Your task to perform on an android device: open app "HBO Max: Stream TV & Movies" (install if not already installed) and go to login screen Image 0: 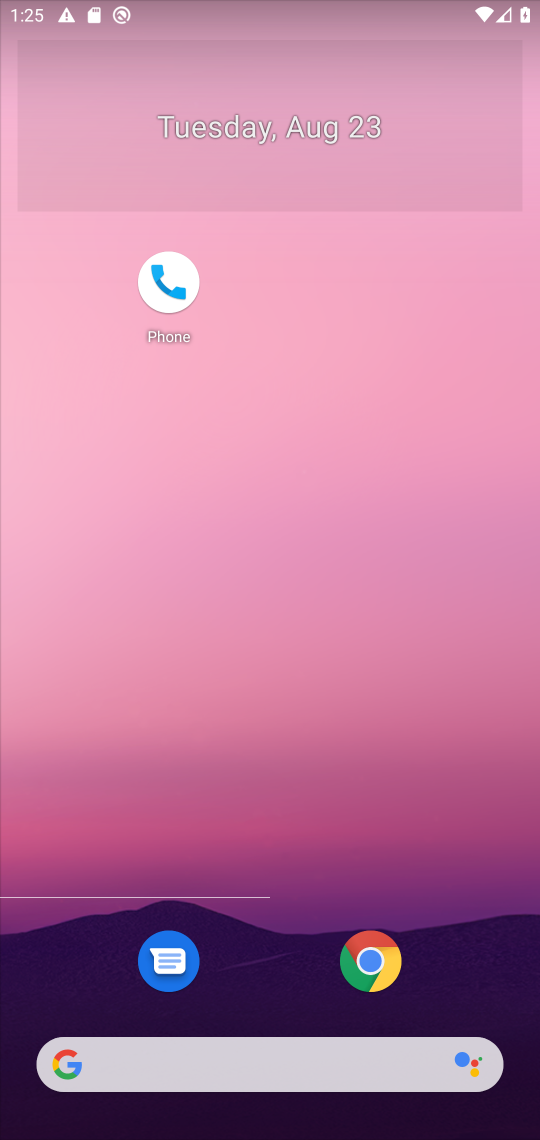
Step 0: drag from (263, 1004) to (239, 224)
Your task to perform on an android device: open app "HBO Max: Stream TV & Movies" (install if not already installed) and go to login screen Image 1: 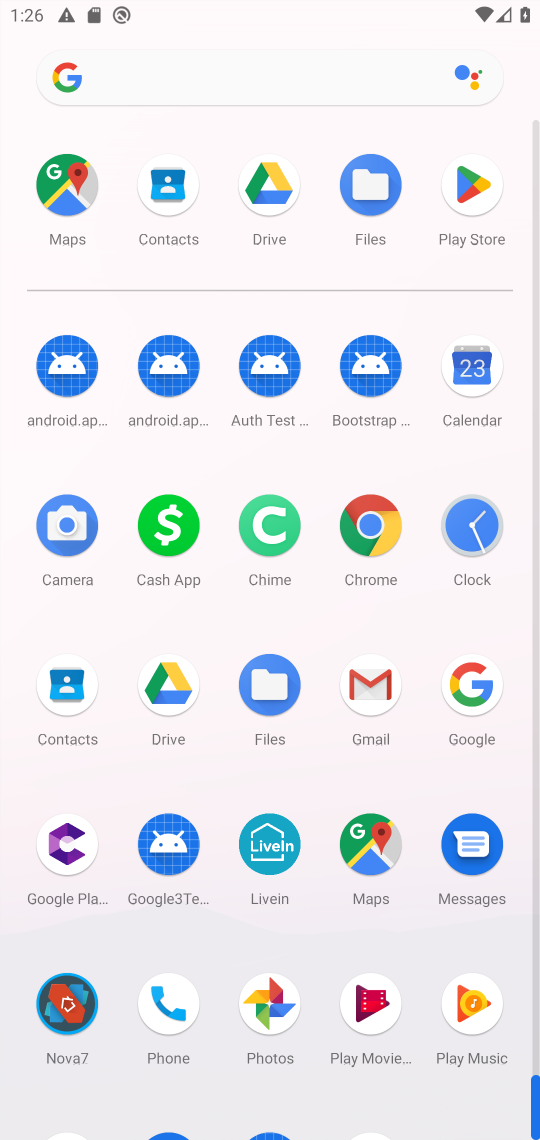
Step 1: click (456, 198)
Your task to perform on an android device: open app "HBO Max: Stream TV & Movies" (install if not already installed) and go to login screen Image 2: 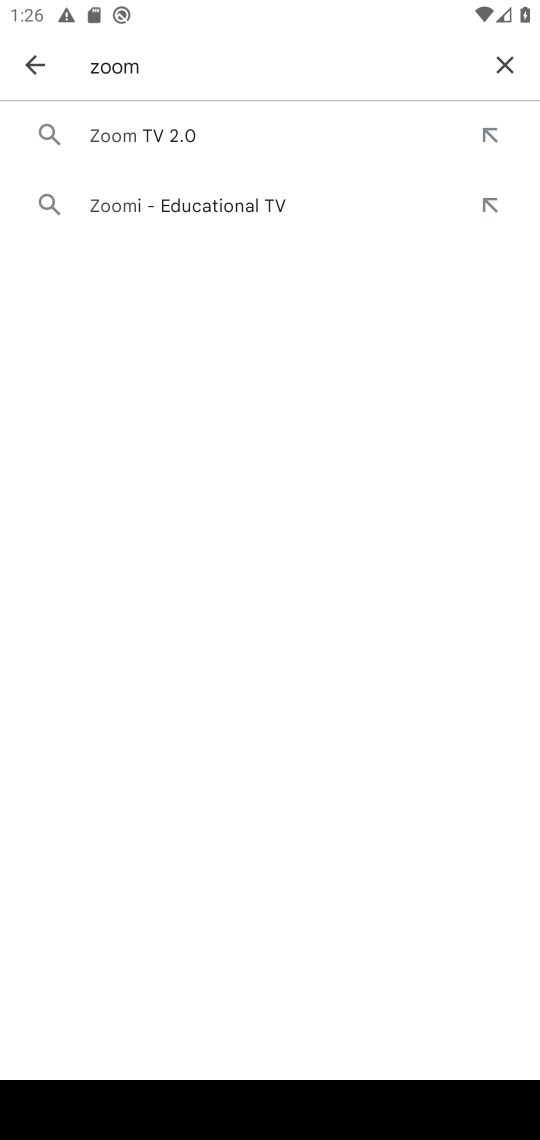
Step 2: click (498, 77)
Your task to perform on an android device: open app "HBO Max: Stream TV & Movies" (install if not already installed) and go to login screen Image 3: 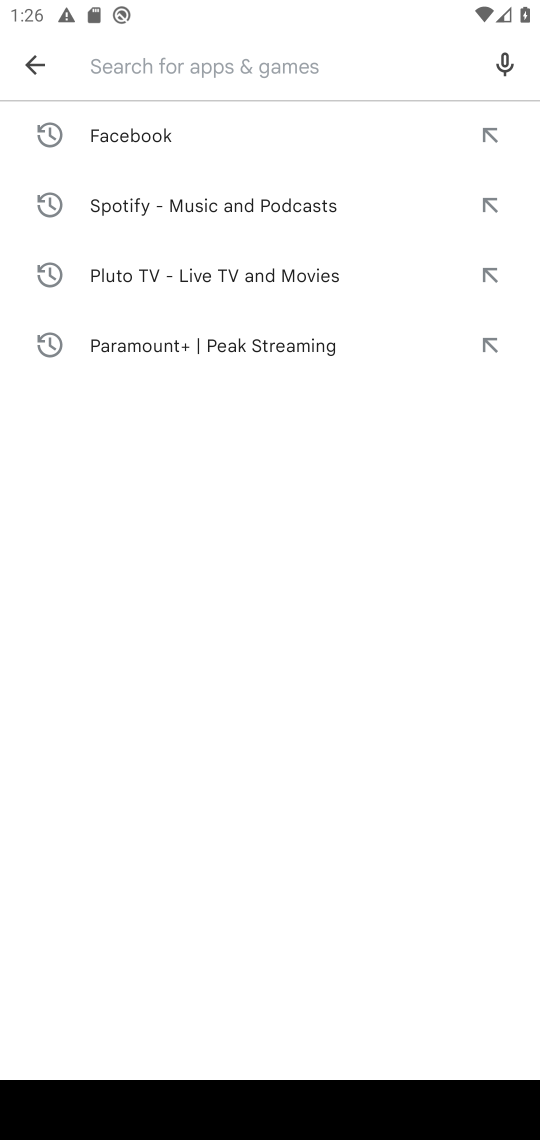
Step 3: type "hbo"
Your task to perform on an android device: open app "HBO Max: Stream TV & Movies" (install if not already installed) and go to login screen Image 4: 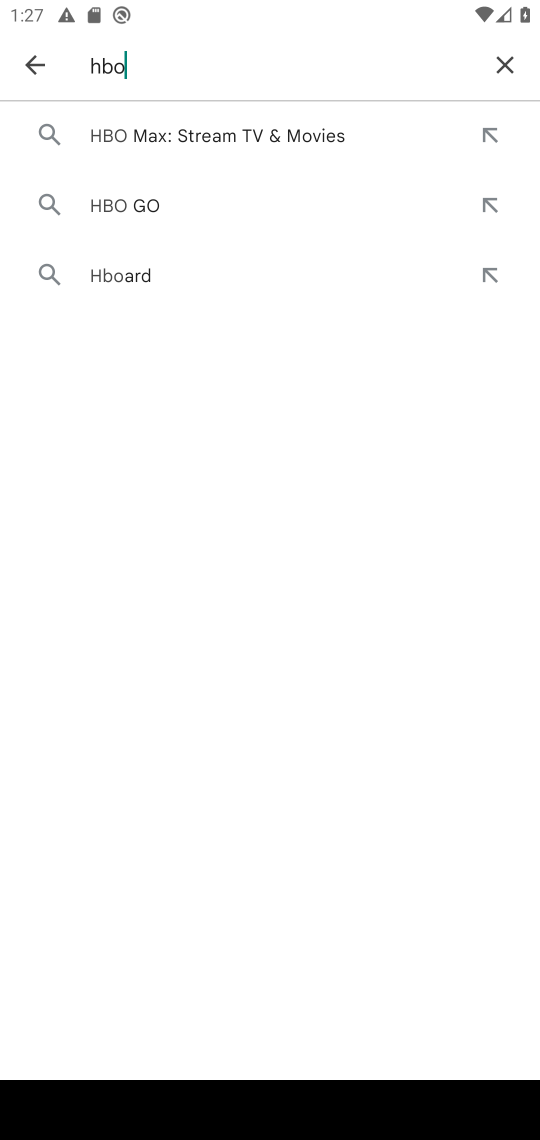
Step 4: click (177, 112)
Your task to perform on an android device: open app "HBO Max: Stream TV & Movies" (install if not already installed) and go to login screen Image 5: 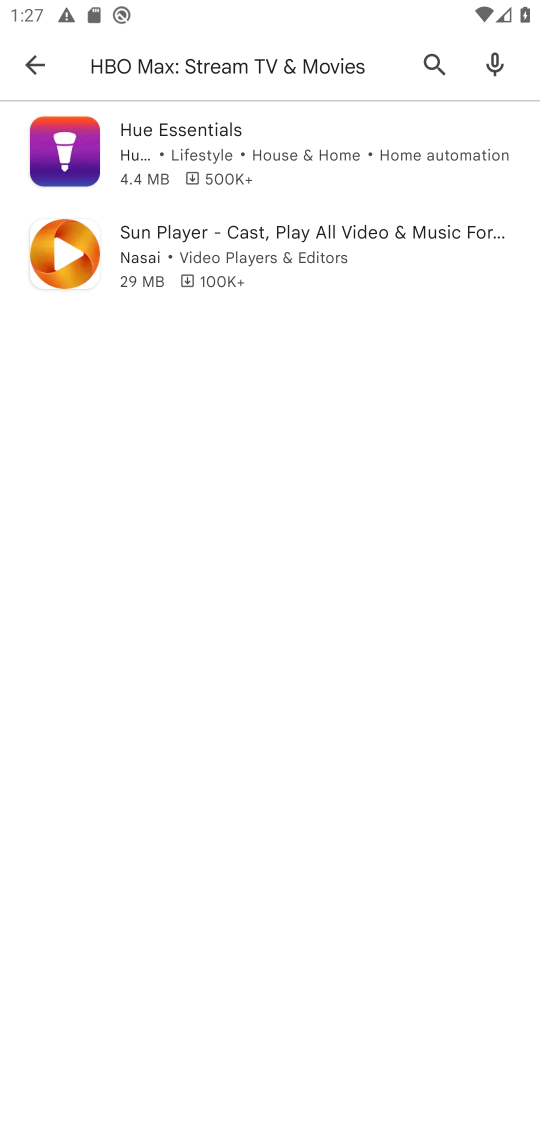
Step 5: task complete